Your task to perform on an android device: What is the news today? Image 0: 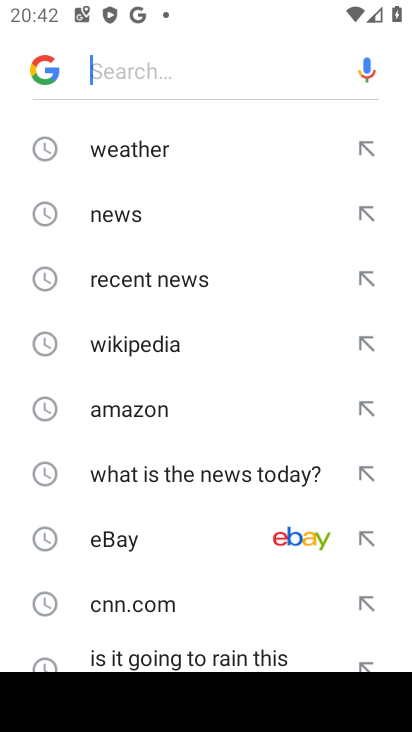
Step 0: click (134, 213)
Your task to perform on an android device: What is the news today? Image 1: 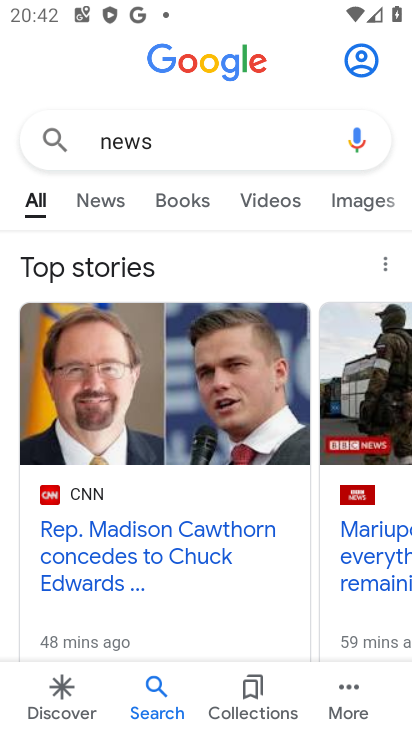
Step 1: task complete